Your task to perform on an android device: What is the news today? Image 0: 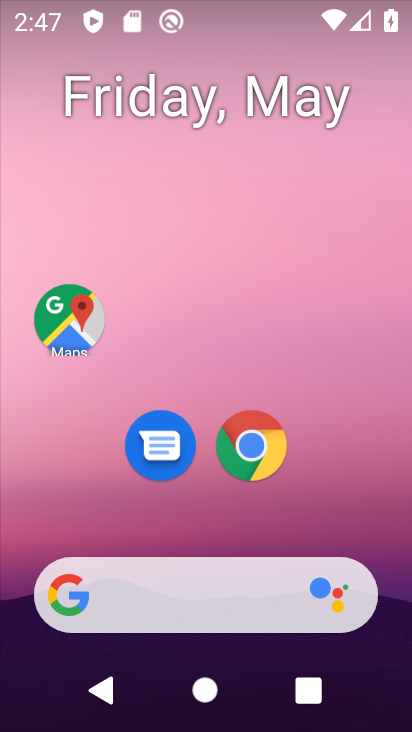
Step 0: click (197, 204)
Your task to perform on an android device: What is the news today? Image 1: 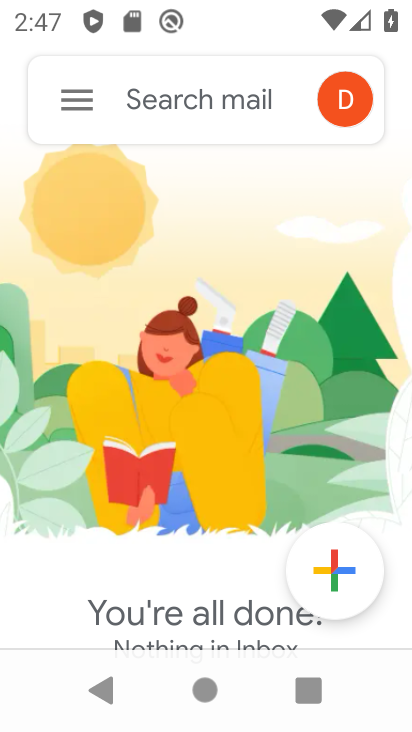
Step 1: press home button
Your task to perform on an android device: What is the news today? Image 2: 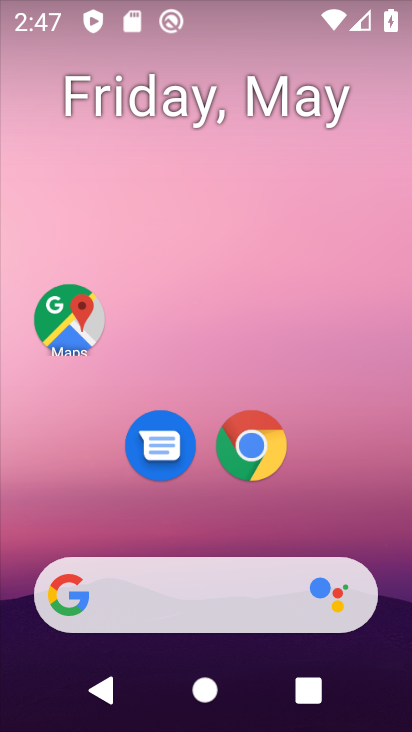
Step 2: drag from (197, 676) to (72, 215)
Your task to perform on an android device: What is the news today? Image 3: 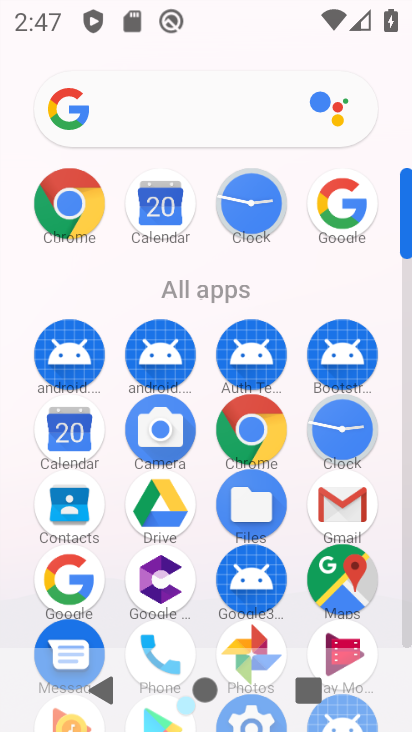
Step 3: click (77, 605)
Your task to perform on an android device: What is the news today? Image 4: 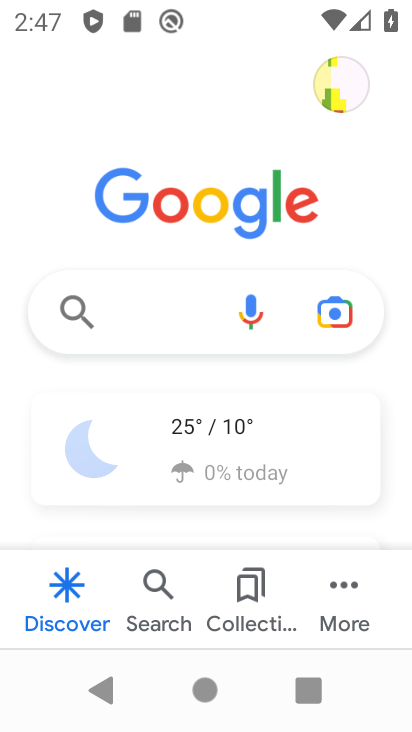
Step 4: click (145, 336)
Your task to perform on an android device: What is the news today? Image 5: 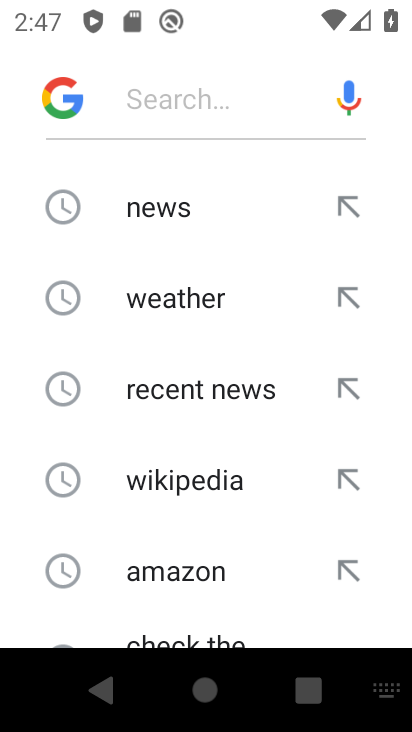
Step 5: click (161, 224)
Your task to perform on an android device: What is the news today? Image 6: 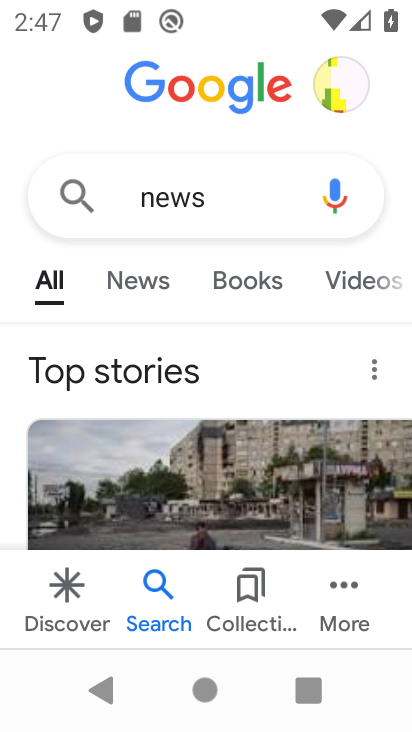
Step 6: click (150, 286)
Your task to perform on an android device: What is the news today? Image 7: 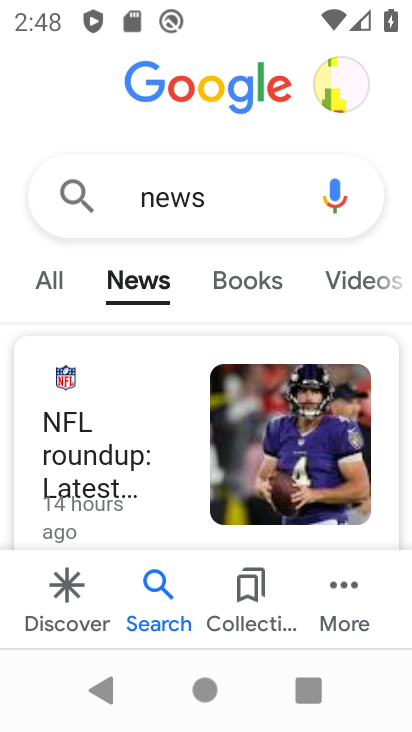
Step 7: task complete